Your task to perform on an android device: Search for razer thresher on walmart, select the first entry, and add it to the cart. Image 0: 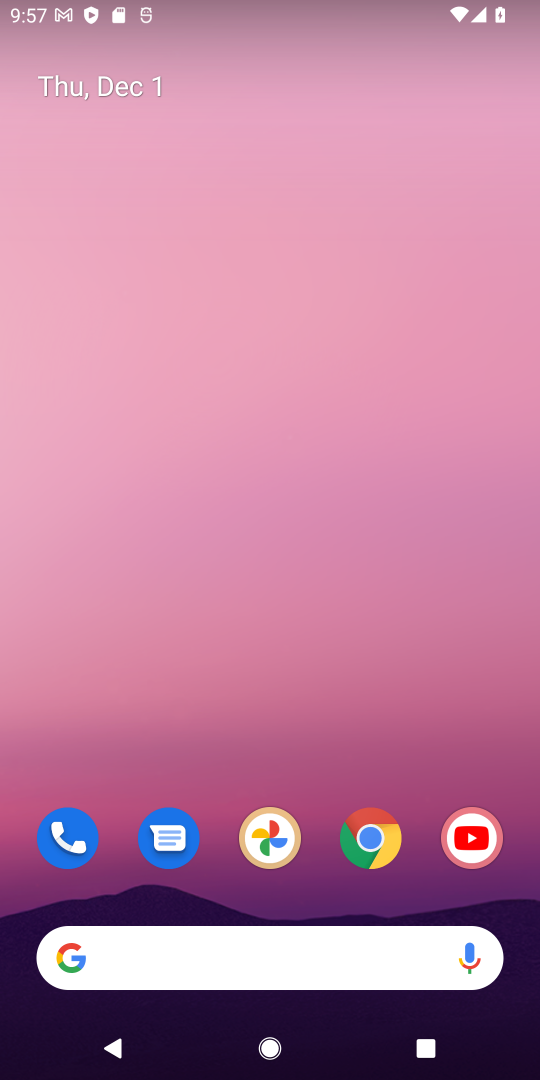
Step 0: drag from (272, 967) to (201, 409)
Your task to perform on an android device: Search for razer thresher on walmart, select the first entry, and add it to the cart. Image 1: 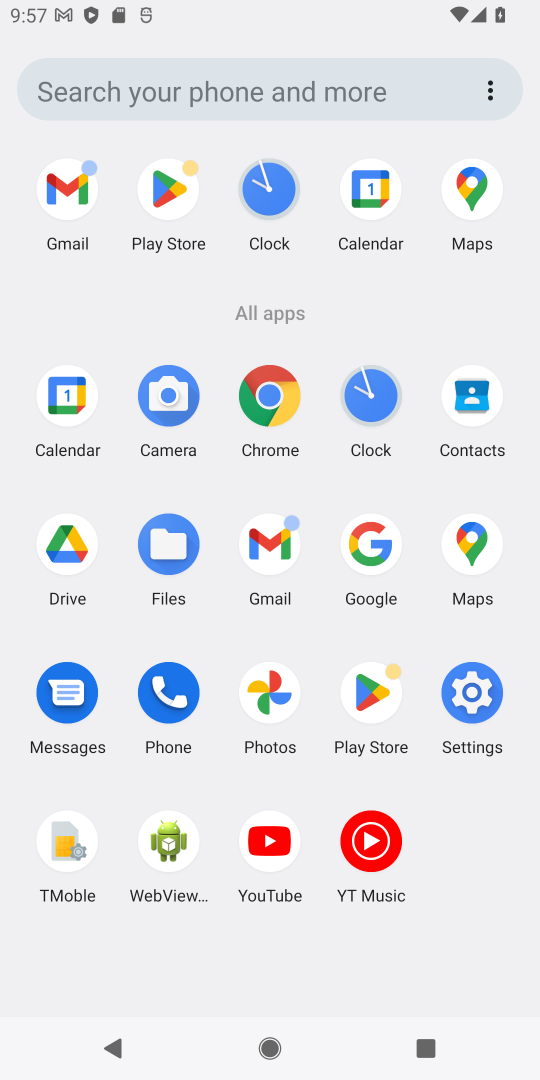
Step 1: click (376, 552)
Your task to perform on an android device: Search for razer thresher on walmart, select the first entry, and add it to the cart. Image 2: 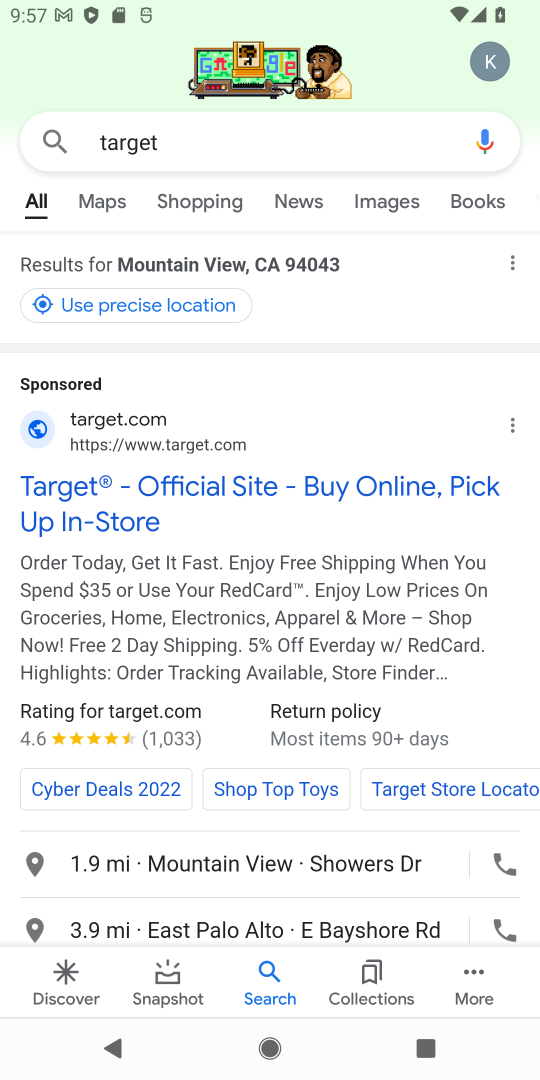
Step 2: click (142, 132)
Your task to perform on an android device: Search for razer thresher on walmart, select the first entry, and add it to the cart. Image 3: 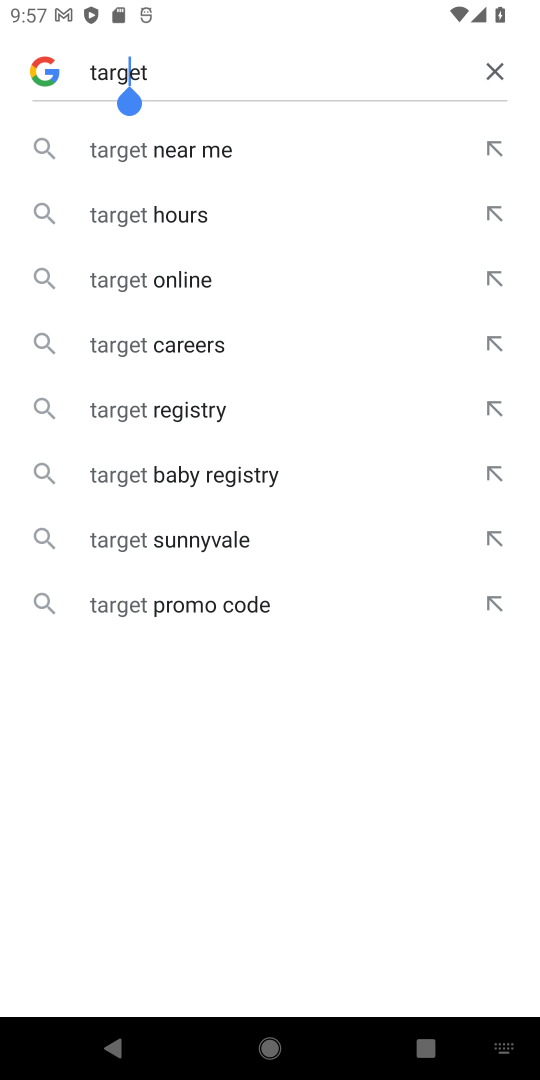
Step 3: click (497, 70)
Your task to perform on an android device: Search for razer thresher on walmart, select the first entry, and add it to the cart. Image 4: 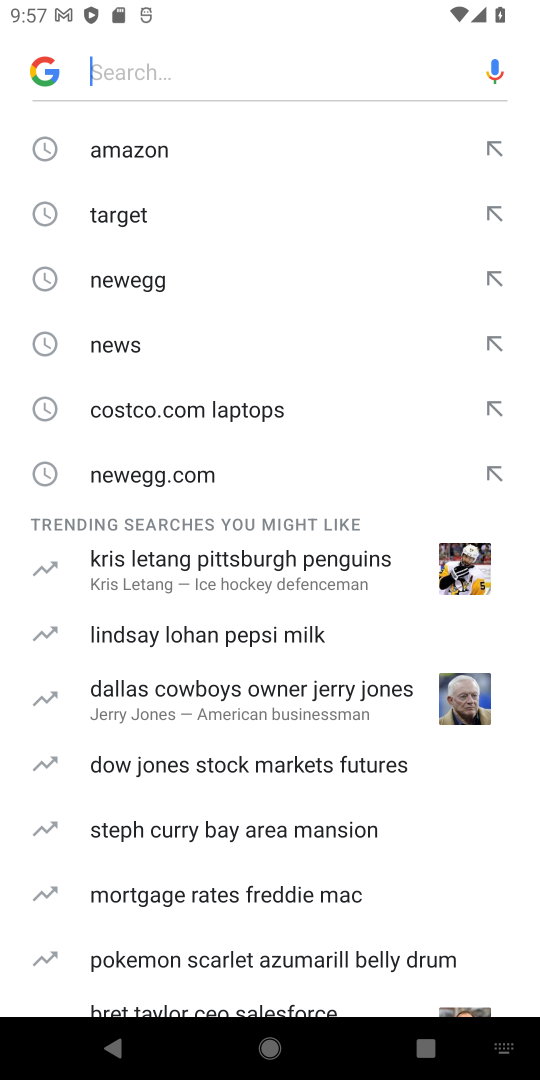
Step 4: drag from (184, 665) to (140, 267)
Your task to perform on an android device: Search for razer thresher on walmart, select the first entry, and add it to the cart. Image 5: 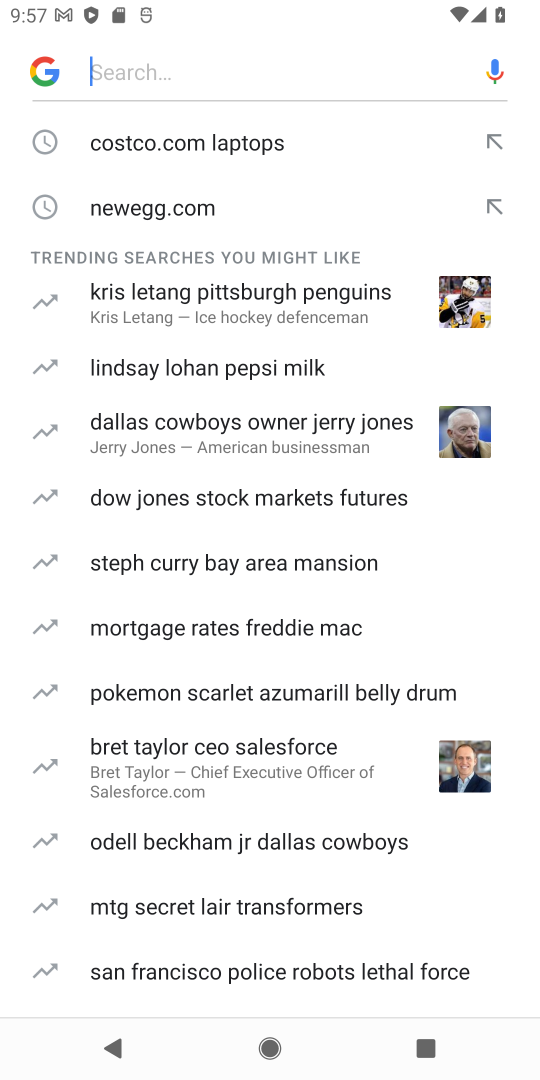
Step 5: drag from (153, 756) to (154, 302)
Your task to perform on an android device: Search for razer thresher on walmart, select the first entry, and add it to the cart. Image 6: 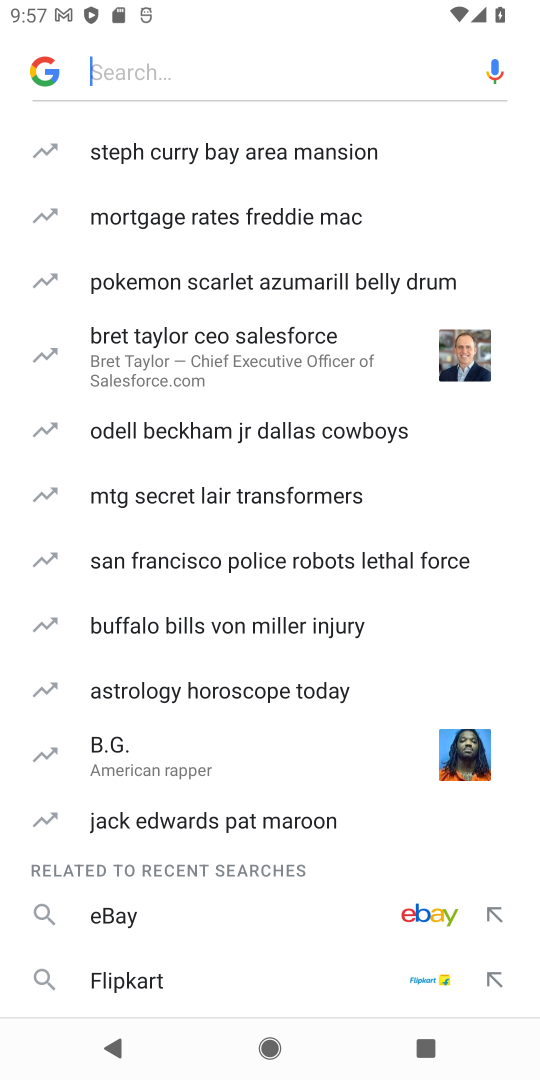
Step 6: drag from (178, 679) to (171, 344)
Your task to perform on an android device: Search for razer thresher on walmart, select the first entry, and add it to the cart. Image 7: 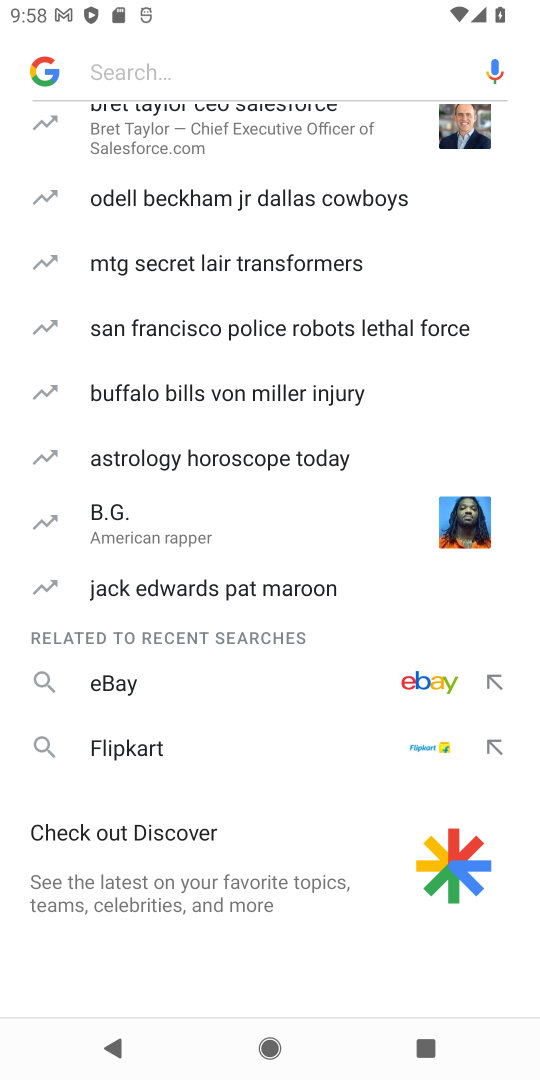
Step 7: type "walmart"
Your task to perform on an android device: Search for razer thresher on walmart, select the first entry, and add it to the cart. Image 8: 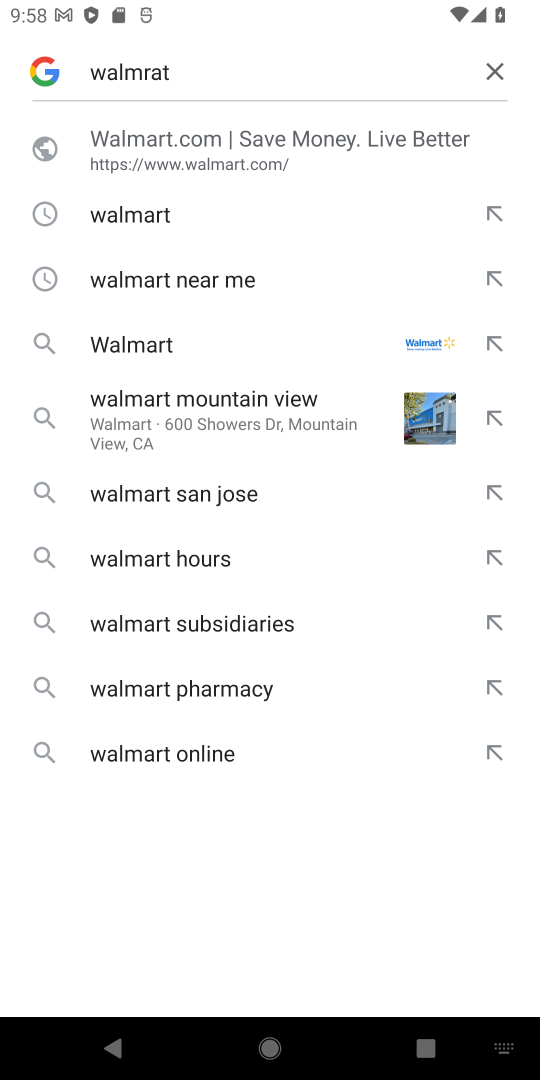
Step 8: click (166, 148)
Your task to perform on an android device: Search for razer thresher on walmart, select the first entry, and add it to the cart. Image 9: 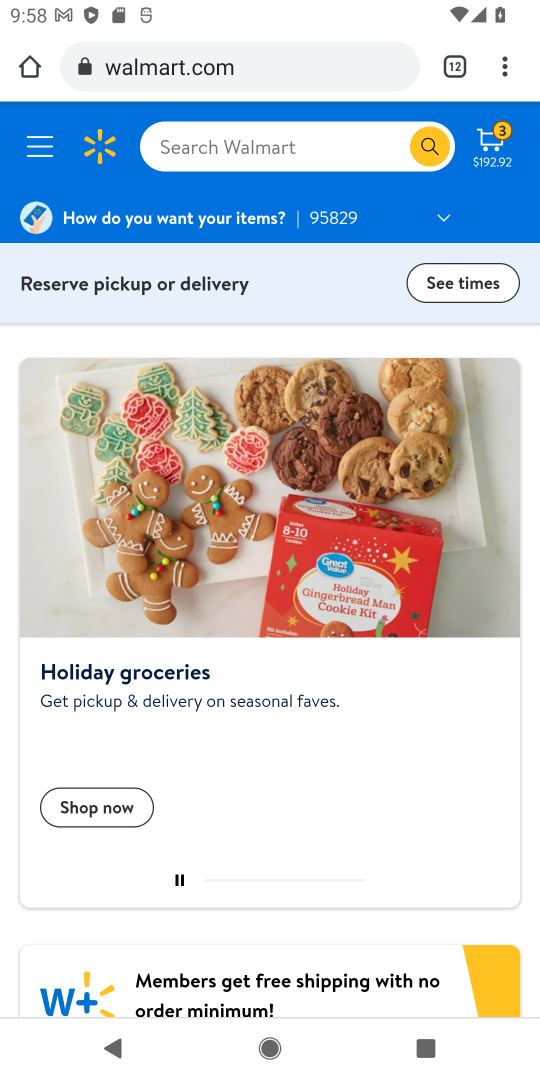
Step 9: click (194, 143)
Your task to perform on an android device: Search for razer thresher on walmart, select the first entry, and add it to the cart. Image 10: 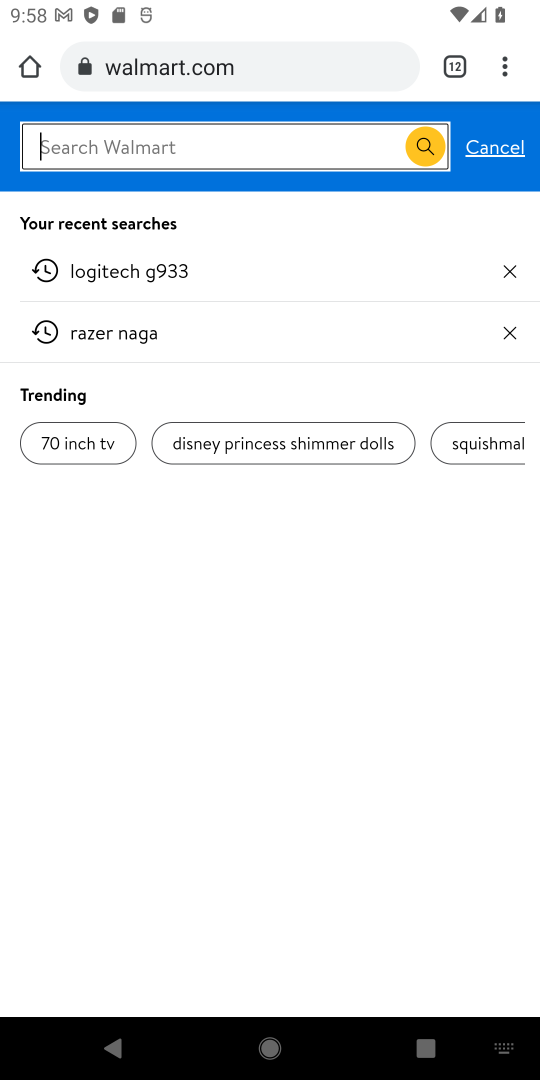
Step 10: type "razer thresher"
Your task to perform on an android device: Search for razer thresher on walmart, select the first entry, and add it to the cart. Image 11: 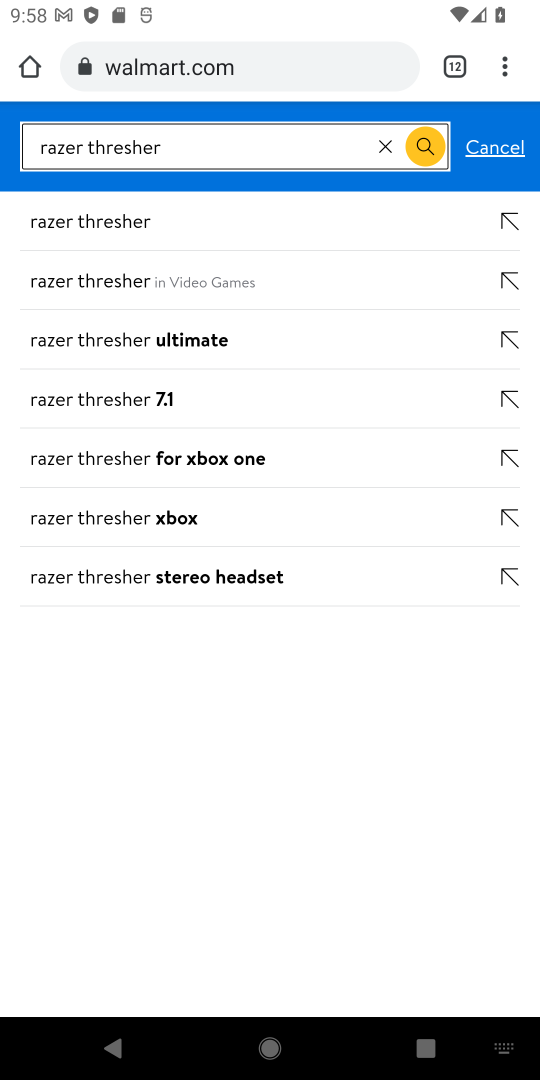
Step 11: click (114, 221)
Your task to perform on an android device: Search for razer thresher on walmart, select the first entry, and add it to the cart. Image 12: 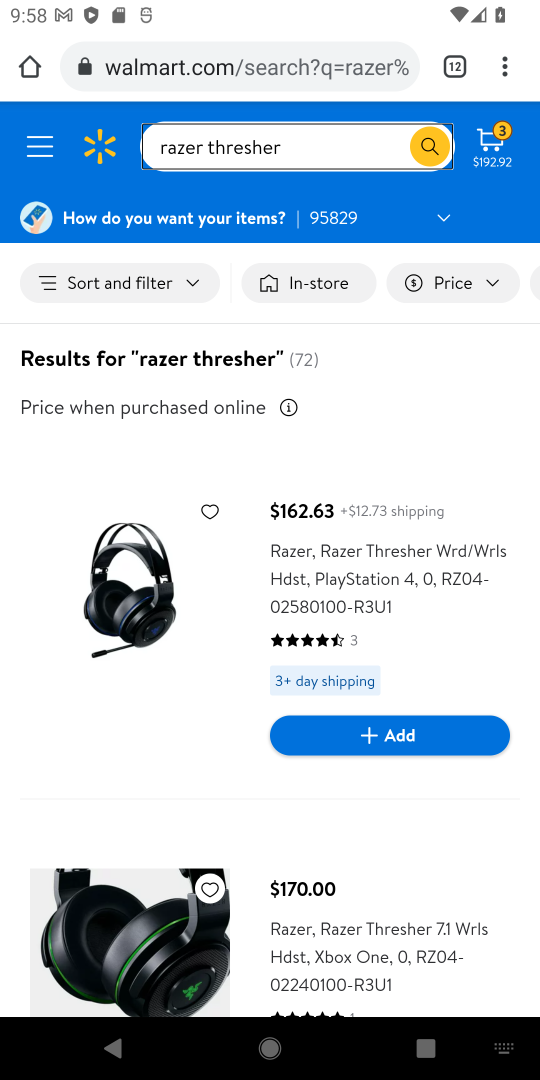
Step 12: click (424, 740)
Your task to perform on an android device: Search for razer thresher on walmart, select the first entry, and add it to the cart. Image 13: 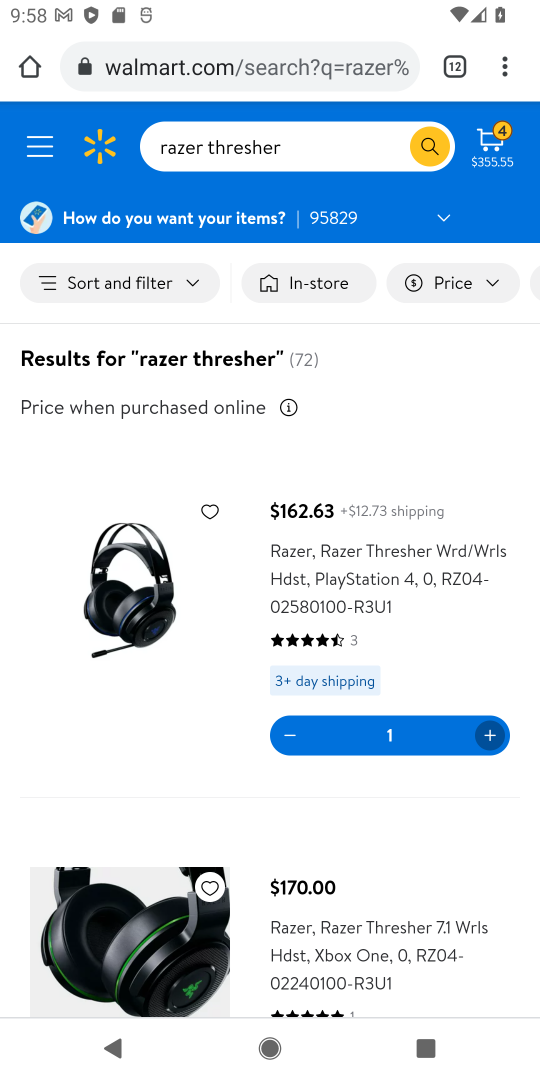
Step 13: task complete